Your task to perform on an android device: Open Google Chrome and open the bookmarks view Image 0: 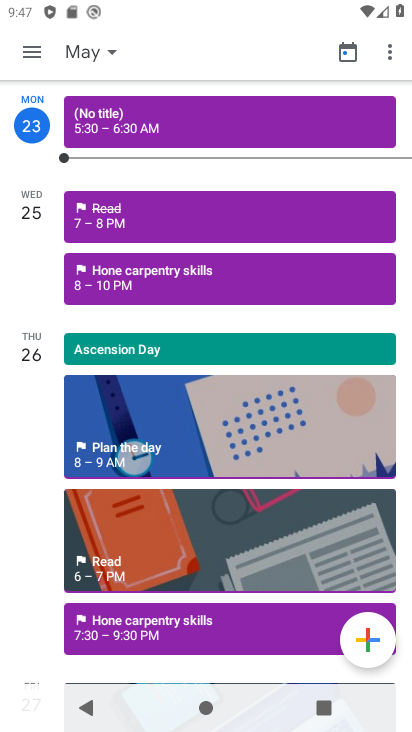
Step 0: press home button
Your task to perform on an android device: Open Google Chrome and open the bookmarks view Image 1: 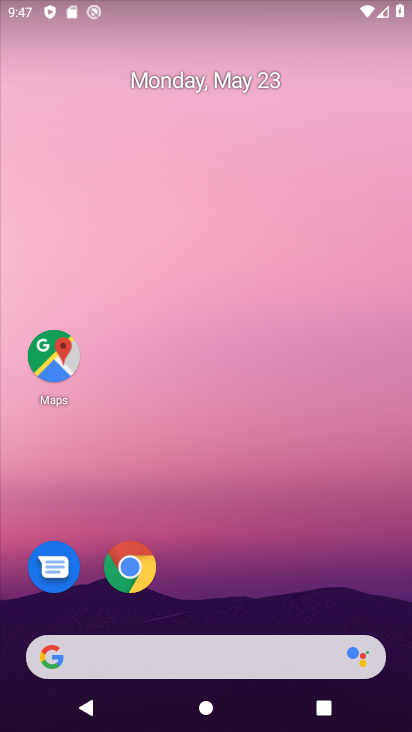
Step 1: click (145, 576)
Your task to perform on an android device: Open Google Chrome and open the bookmarks view Image 2: 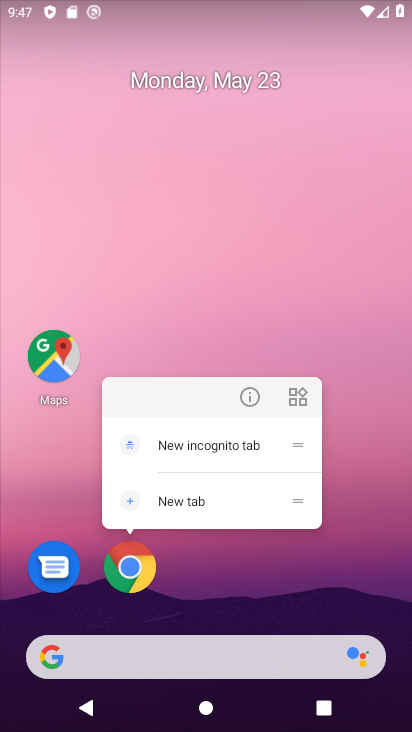
Step 2: click (142, 576)
Your task to perform on an android device: Open Google Chrome and open the bookmarks view Image 3: 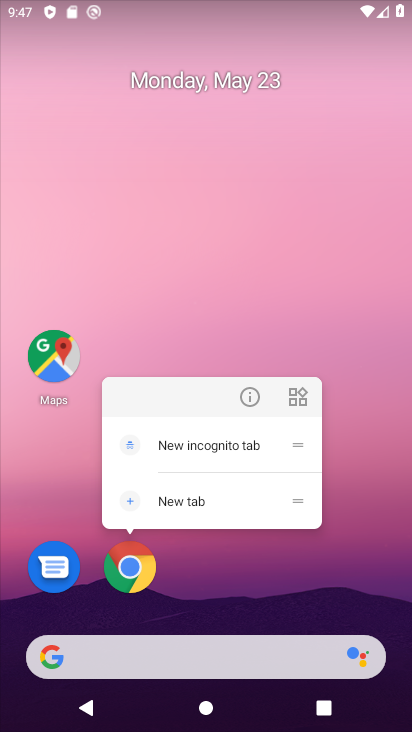
Step 3: click (137, 573)
Your task to perform on an android device: Open Google Chrome and open the bookmarks view Image 4: 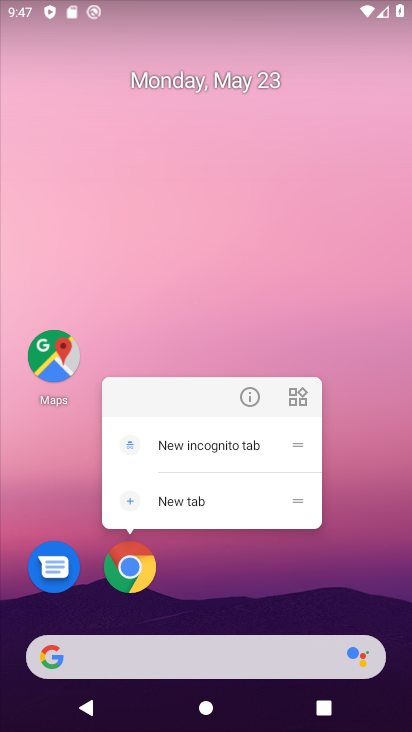
Step 4: click (130, 565)
Your task to perform on an android device: Open Google Chrome and open the bookmarks view Image 5: 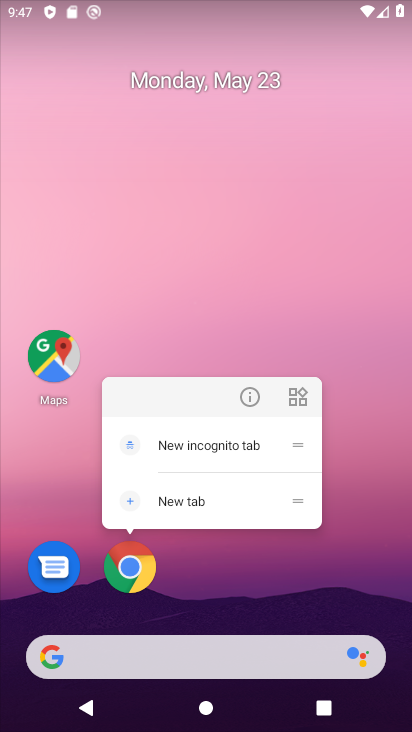
Step 5: click (130, 565)
Your task to perform on an android device: Open Google Chrome and open the bookmarks view Image 6: 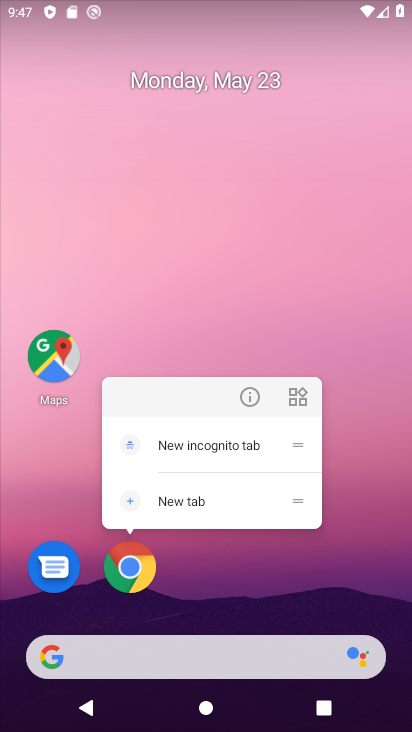
Step 6: click (127, 564)
Your task to perform on an android device: Open Google Chrome and open the bookmarks view Image 7: 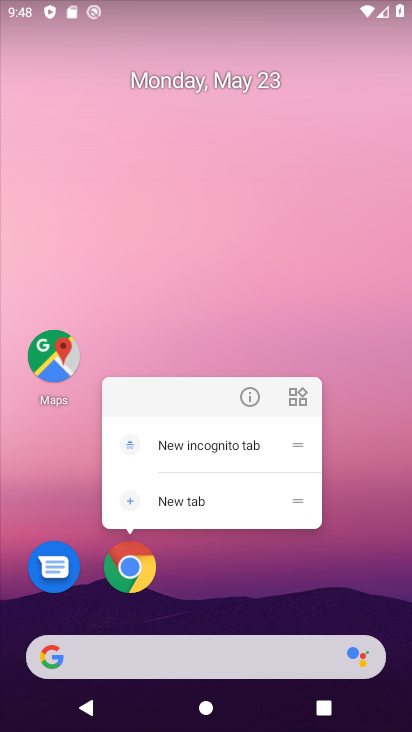
Step 7: click (127, 576)
Your task to perform on an android device: Open Google Chrome and open the bookmarks view Image 8: 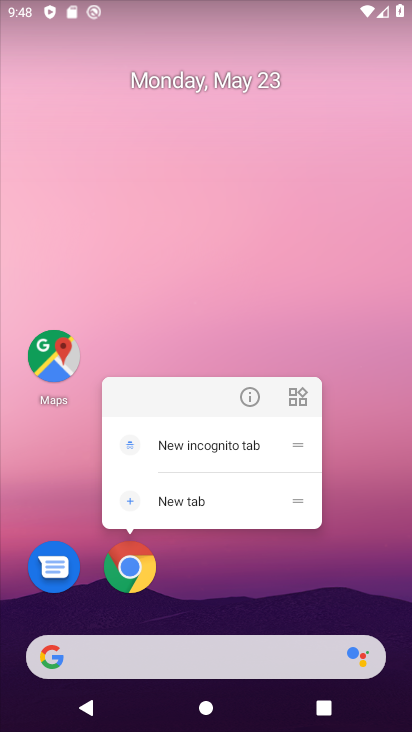
Step 8: click (137, 576)
Your task to perform on an android device: Open Google Chrome and open the bookmarks view Image 9: 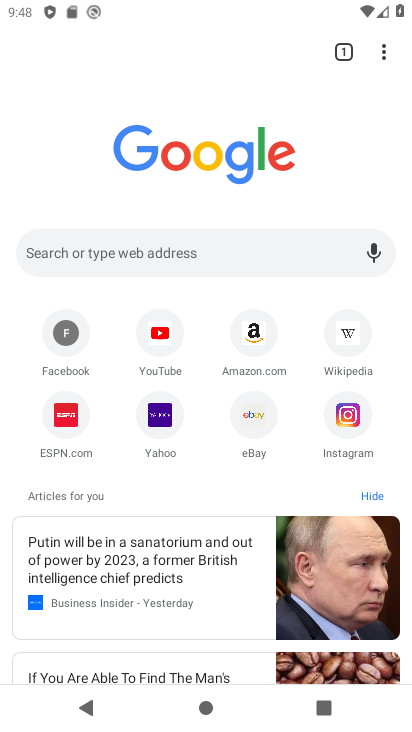
Step 9: task complete